Your task to perform on an android device: toggle pop-ups in chrome Image 0: 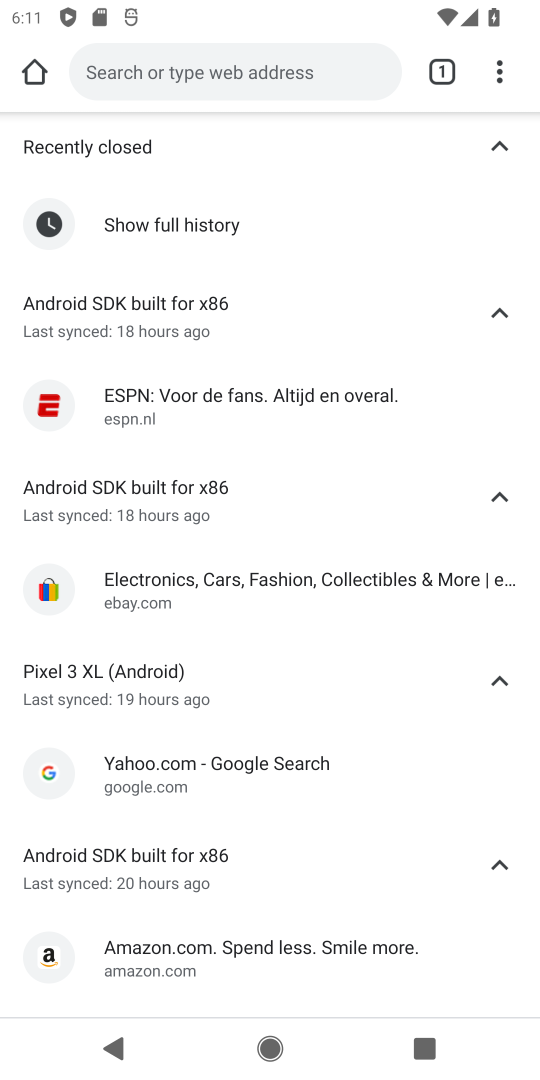
Step 0: press home button
Your task to perform on an android device: toggle pop-ups in chrome Image 1: 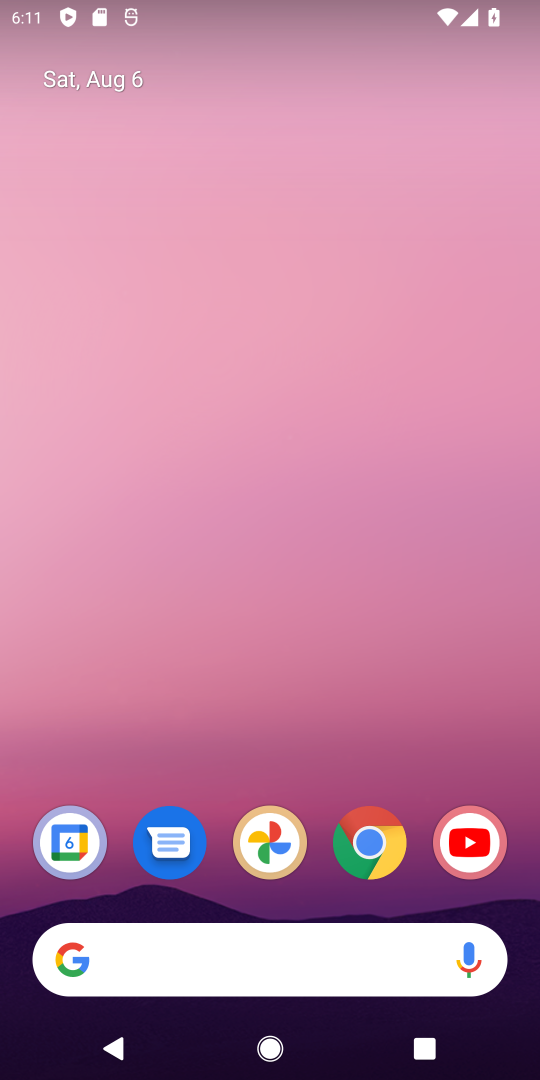
Step 1: click (367, 845)
Your task to perform on an android device: toggle pop-ups in chrome Image 2: 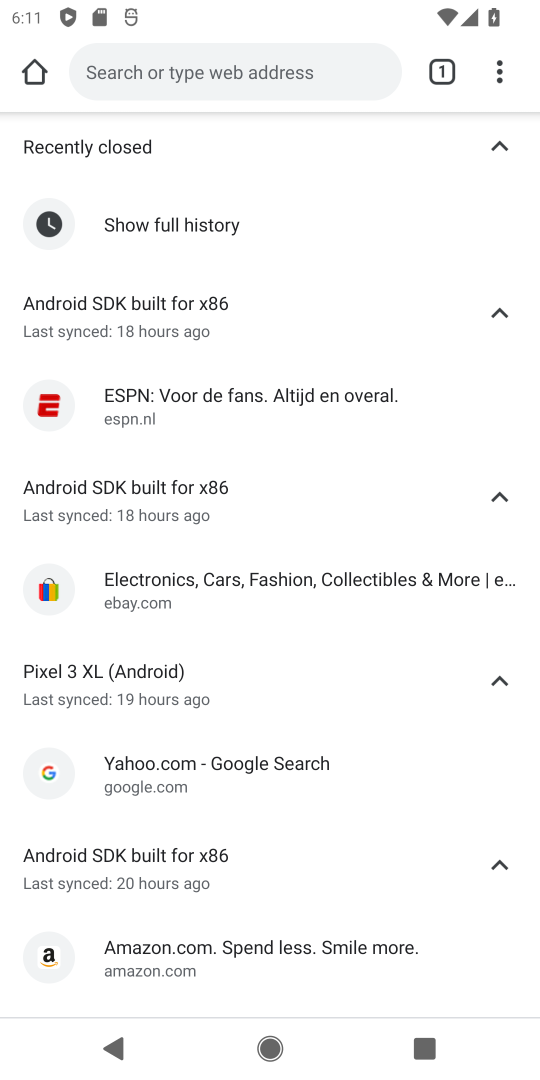
Step 2: click (498, 75)
Your task to perform on an android device: toggle pop-ups in chrome Image 3: 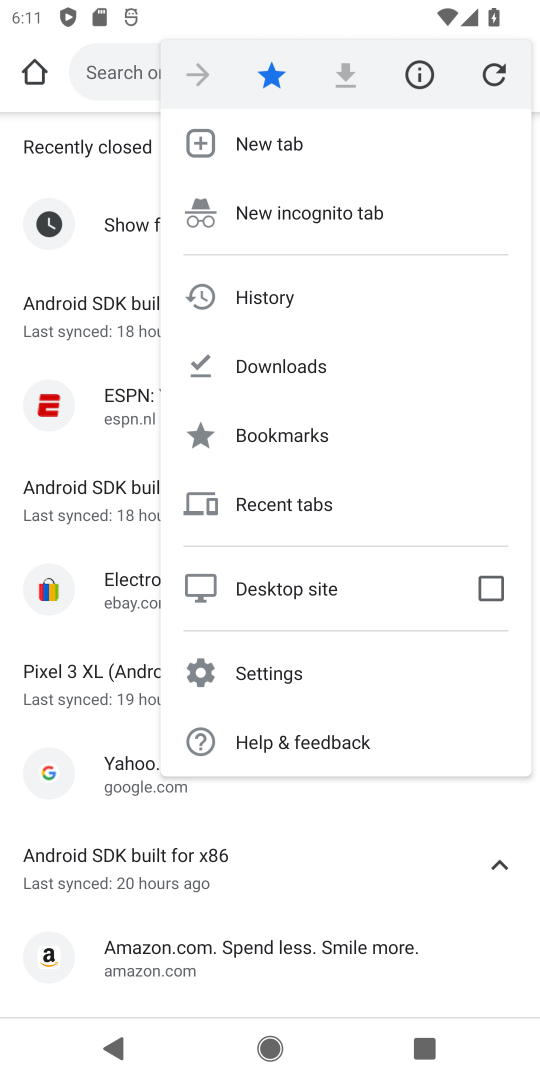
Step 3: click (271, 674)
Your task to perform on an android device: toggle pop-ups in chrome Image 4: 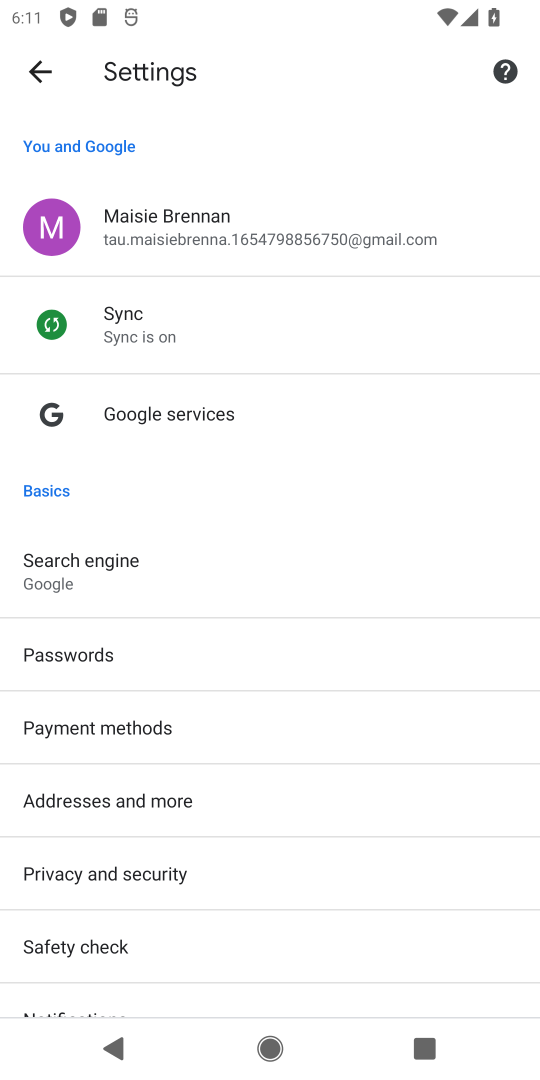
Step 4: drag from (142, 836) to (266, 690)
Your task to perform on an android device: toggle pop-ups in chrome Image 5: 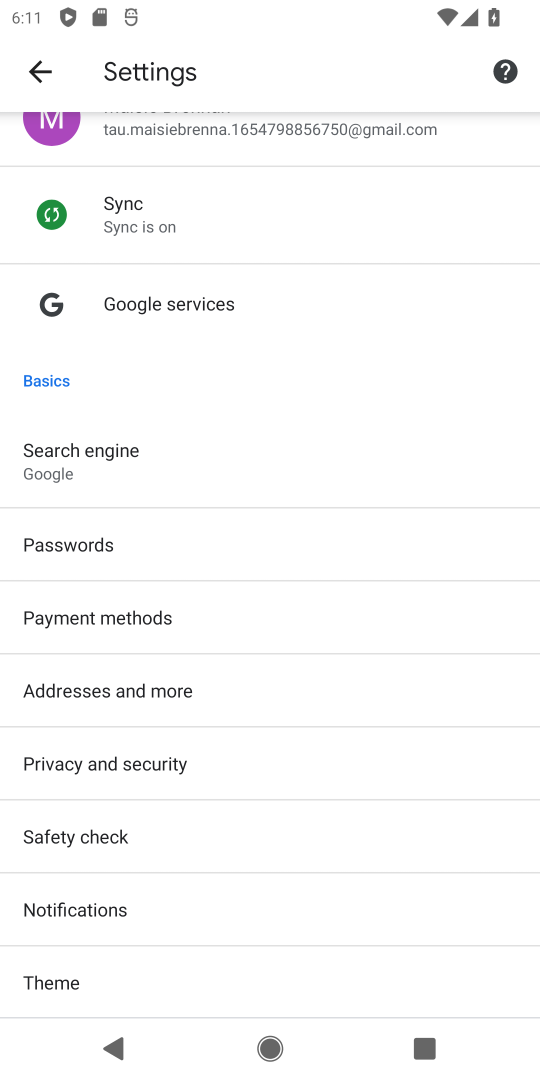
Step 5: drag from (136, 834) to (224, 701)
Your task to perform on an android device: toggle pop-ups in chrome Image 6: 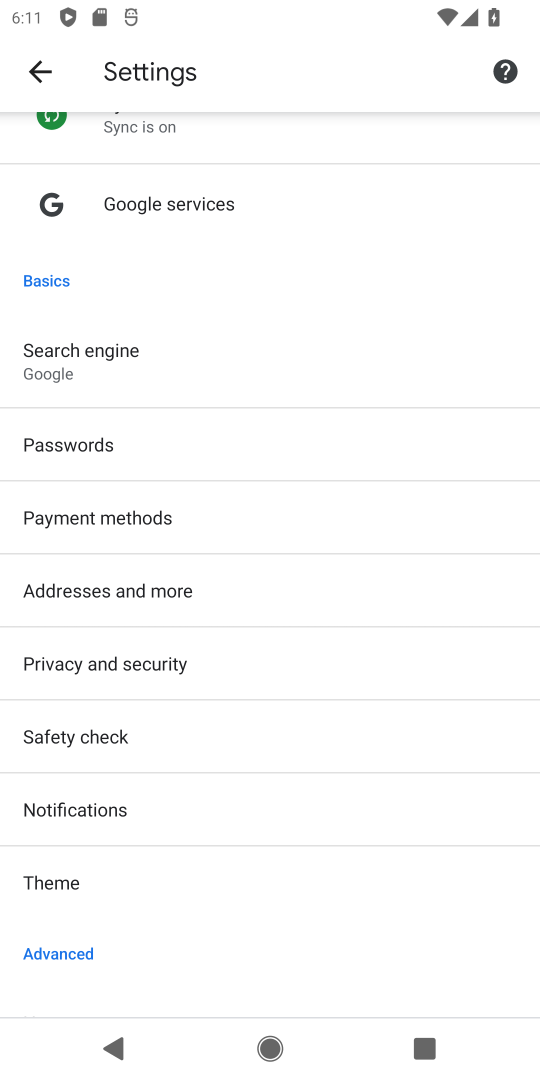
Step 6: drag from (105, 828) to (234, 669)
Your task to perform on an android device: toggle pop-ups in chrome Image 7: 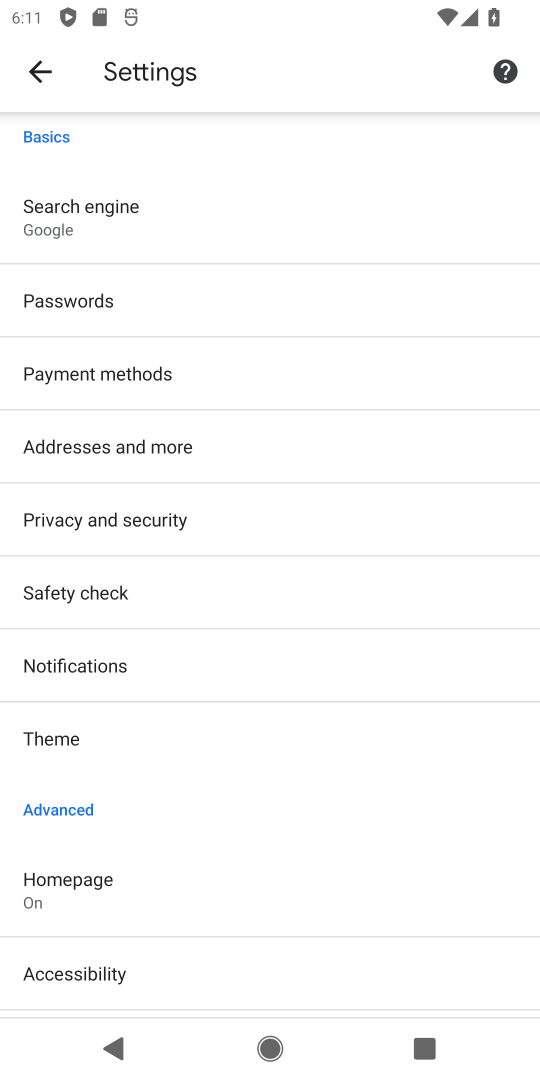
Step 7: drag from (144, 861) to (228, 684)
Your task to perform on an android device: toggle pop-ups in chrome Image 8: 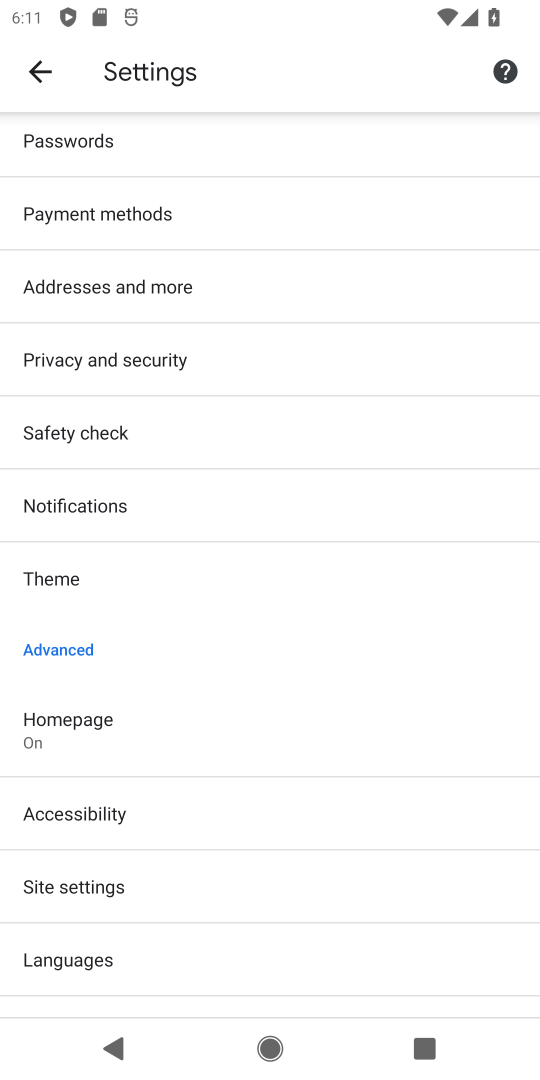
Step 8: drag from (113, 843) to (241, 657)
Your task to perform on an android device: toggle pop-ups in chrome Image 9: 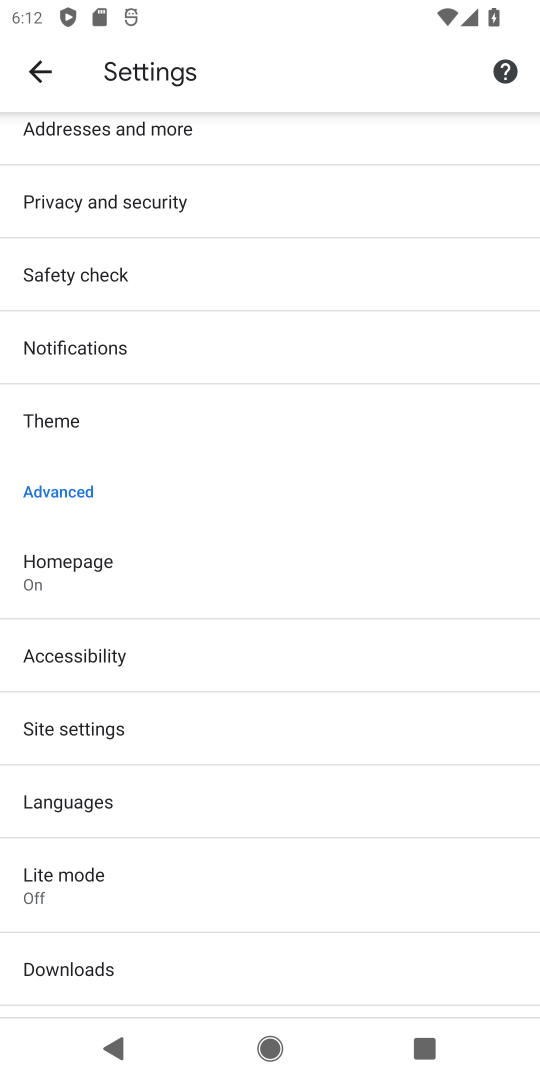
Step 9: click (97, 731)
Your task to perform on an android device: toggle pop-ups in chrome Image 10: 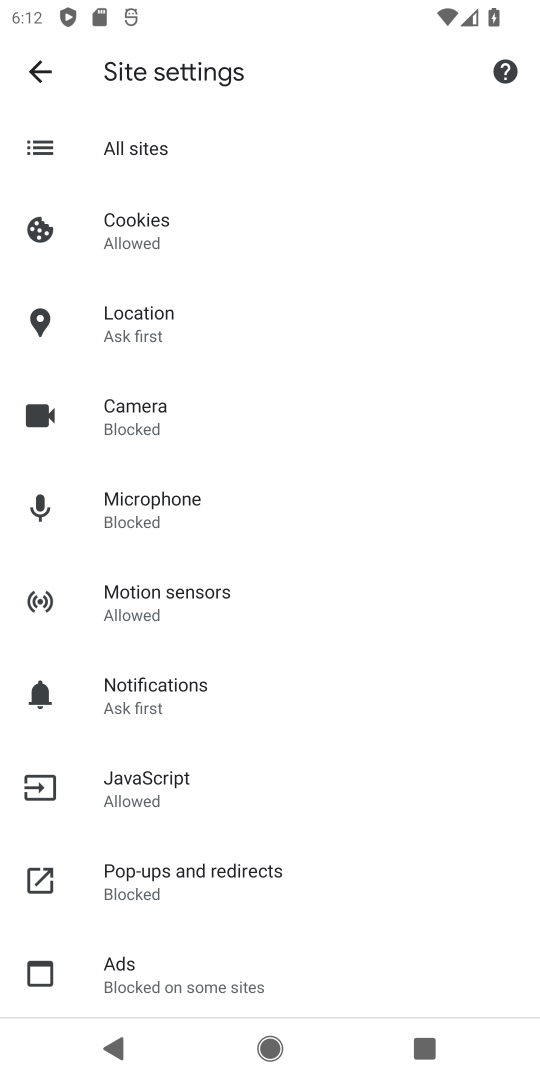
Step 10: drag from (137, 667) to (213, 568)
Your task to perform on an android device: toggle pop-ups in chrome Image 11: 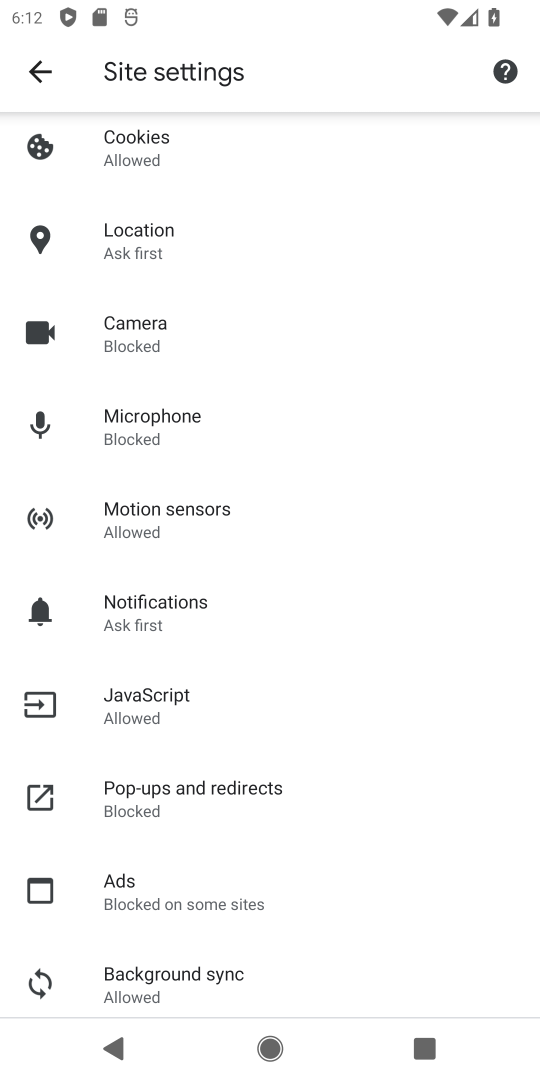
Step 11: click (168, 800)
Your task to perform on an android device: toggle pop-ups in chrome Image 12: 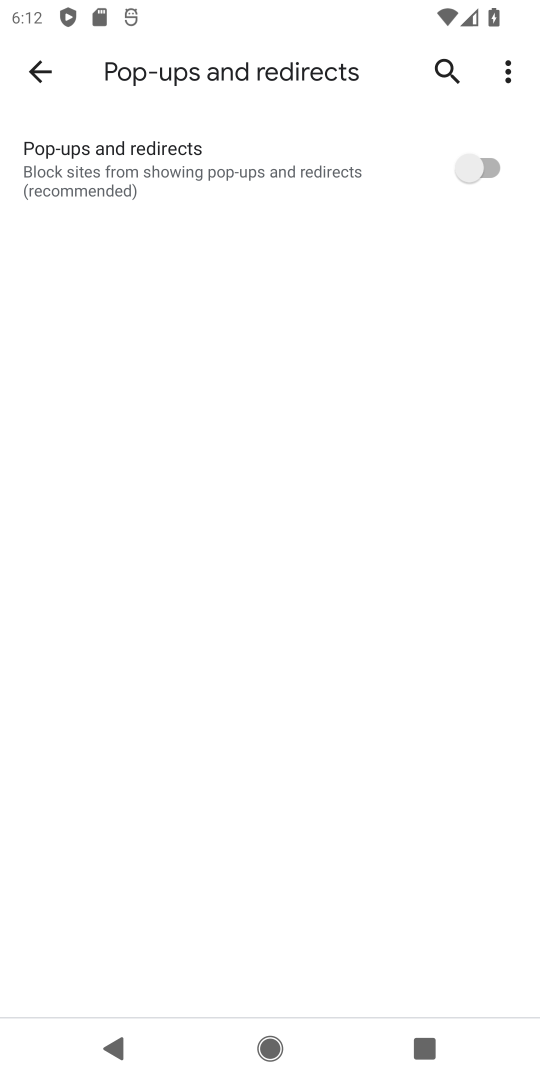
Step 12: click (473, 180)
Your task to perform on an android device: toggle pop-ups in chrome Image 13: 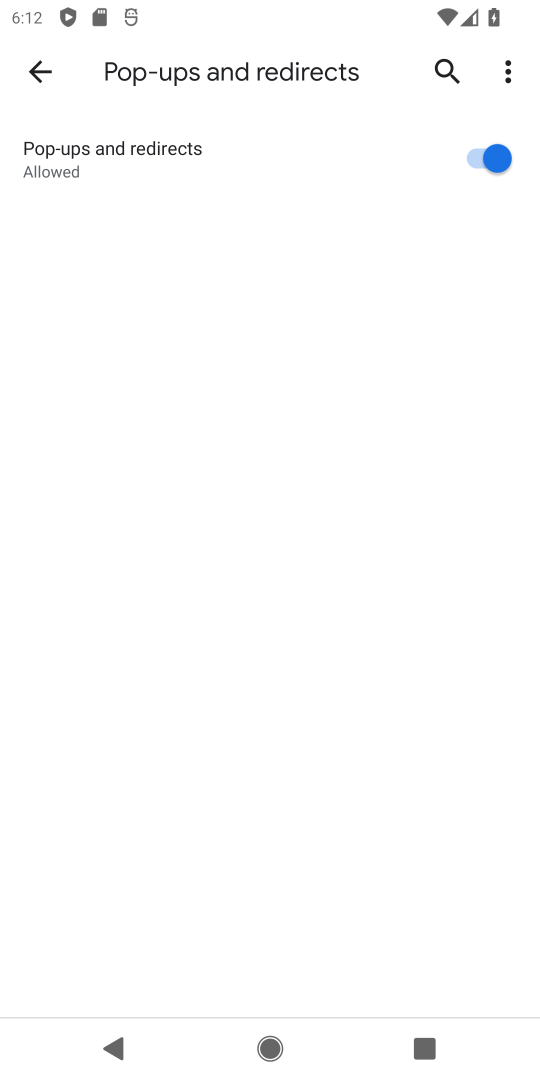
Step 13: task complete